Your task to perform on an android device: open chrome privacy settings Image 0: 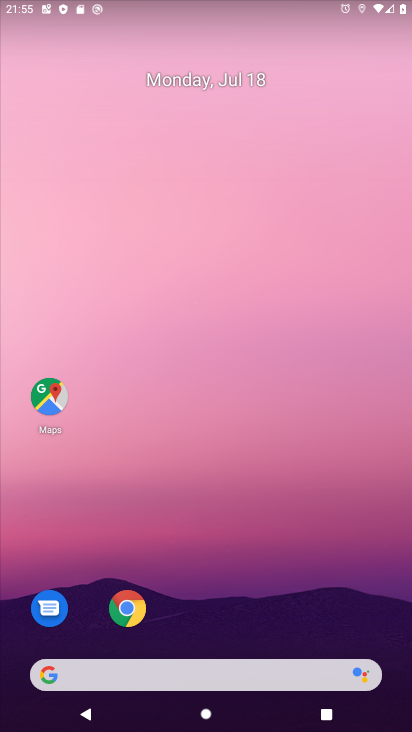
Step 0: click (129, 616)
Your task to perform on an android device: open chrome privacy settings Image 1: 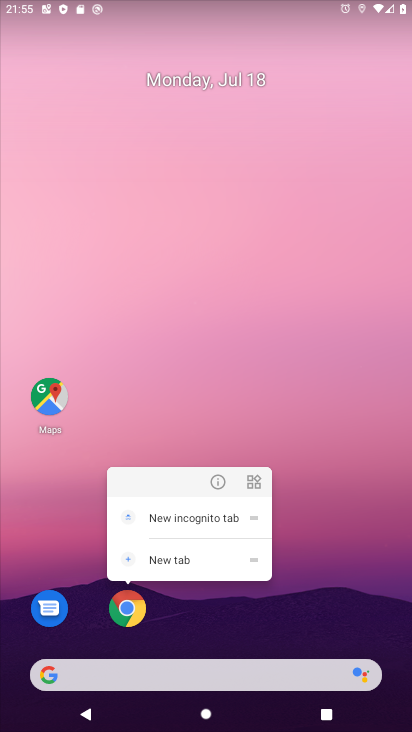
Step 1: click (127, 605)
Your task to perform on an android device: open chrome privacy settings Image 2: 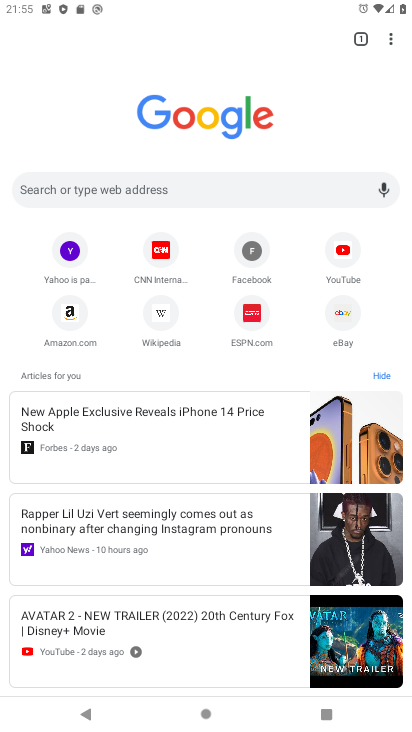
Step 2: click (394, 41)
Your task to perform on an android device: open chrome privacy settings Image 3: 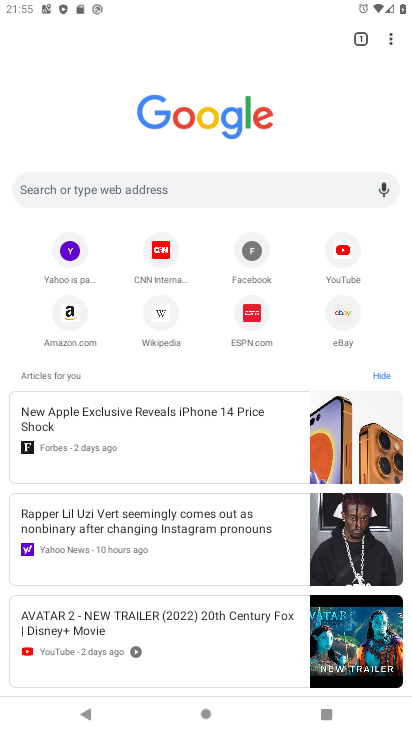
Step 3: click (391, 38)
Your task to perform on an android device: open chrome privacy settings Image 4: 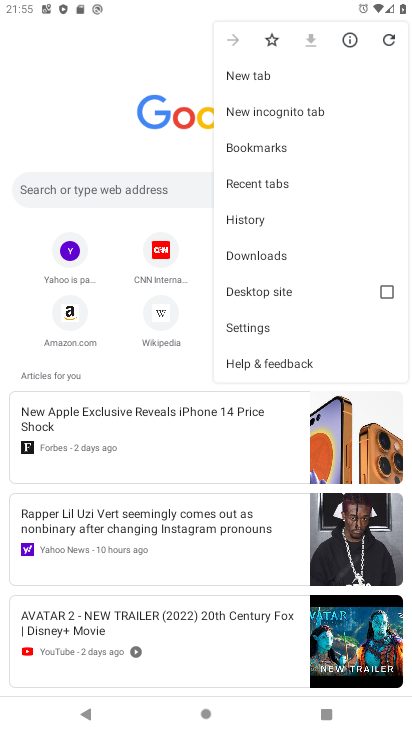
Step 4: click (238, 324)
Your task to perform on an android device: open chrome privacy settings Image 5: 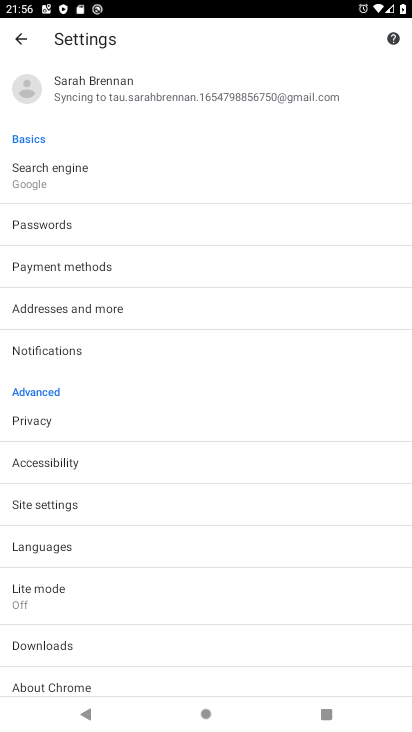
Step 5: task complete